Your task to perform on an android device: Open sound settings Image 0: 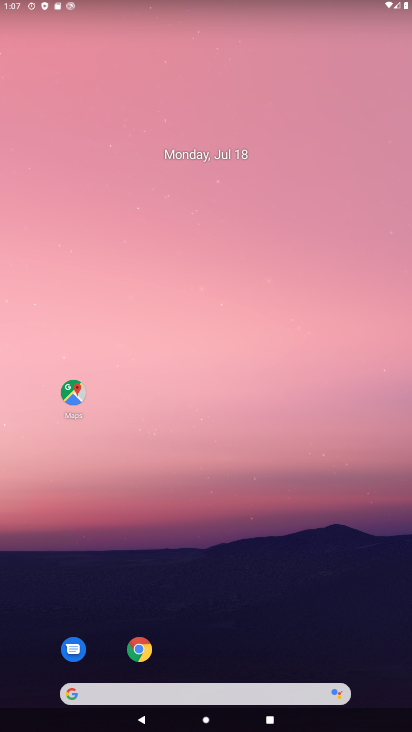
Step 0: drag from (180, 679) to (95, 109)
Your task to perform on an android device: Open sound settings Image 1: 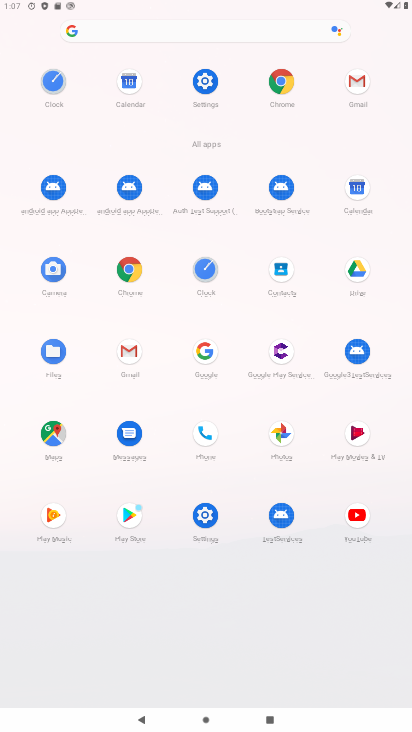
Step 1: click (205, 78)
Your task to perform on an android device: Open sound settings Image 2: 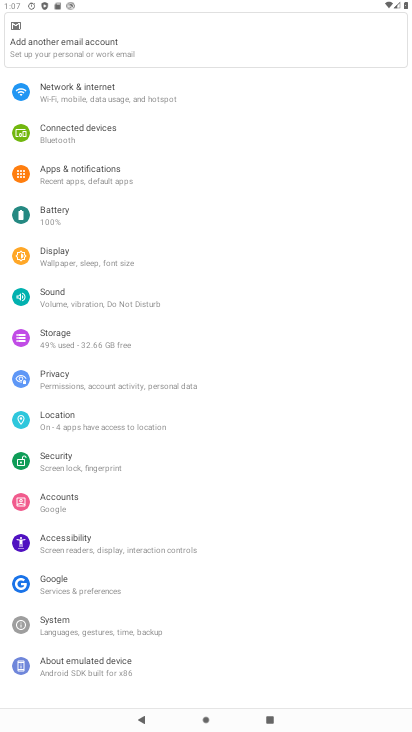
Step 2: click (87, 305)
Your task to perform on an android device: Open sound settings Image 3: 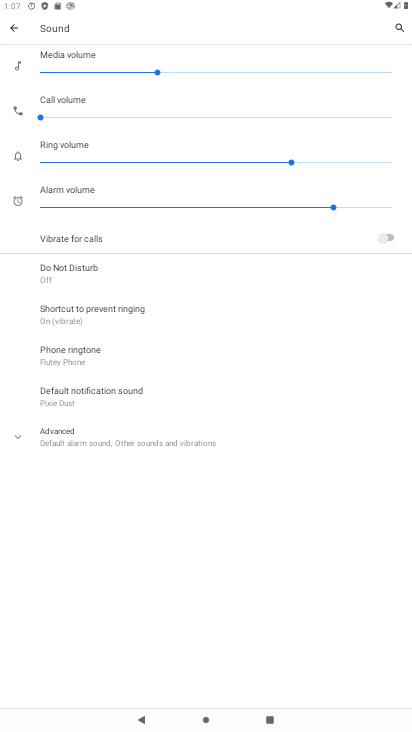
Step 3: click (108, 428)
Your task to perform on an android device: Open sound settings Image 4: 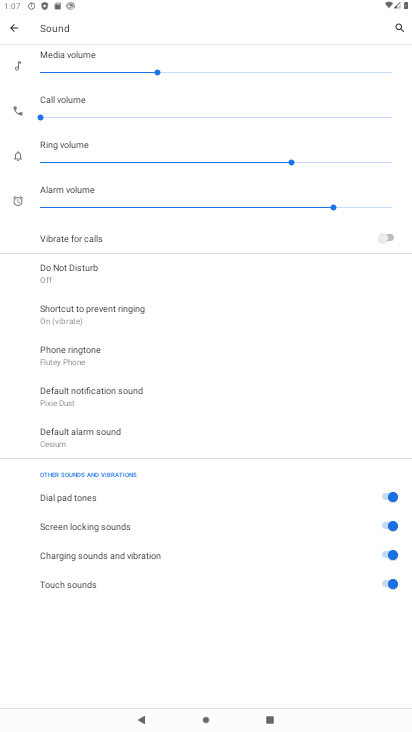
Step 4: task complete